Your task to perform on an android device: toggle show notifications on the lock screen Image 0: 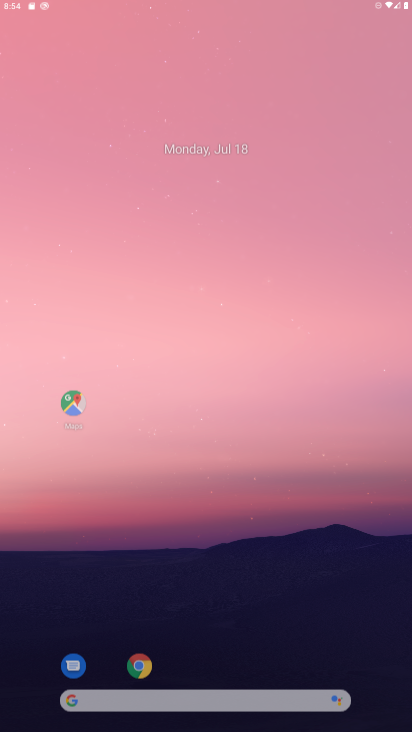
Step 0: press home button
Your task to perform on an android device: toggle show notifications on the lock screen Image 1: 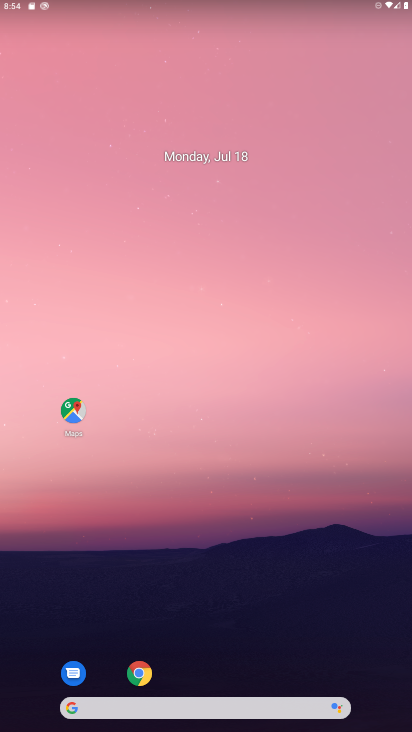
Step 1: drag from (225, 668) to (175, 3)
Your task to perform on an android device: toggle show notifications on the lock screen Image 2: 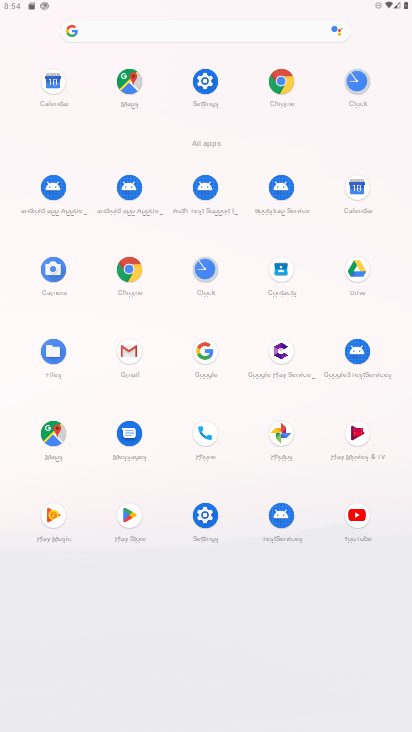
Step 2: click (195, 79)
Your task to perform on an android device: toggle show notifications on the lock screen Image 3: 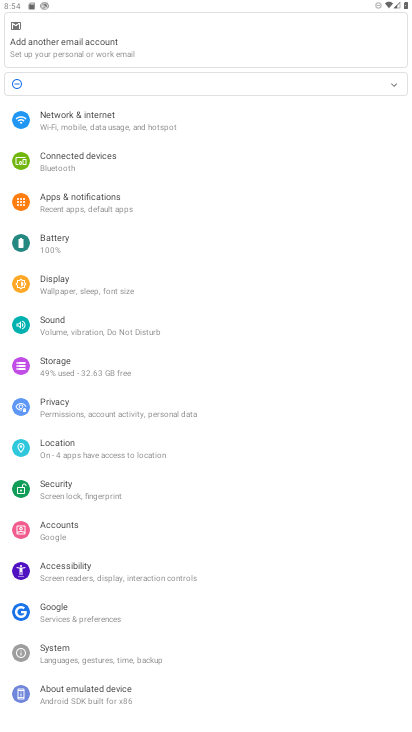
Step 3: click (76, 199)
Your task to perform on an android device: toggle show notifications on the lock screen Image 4: 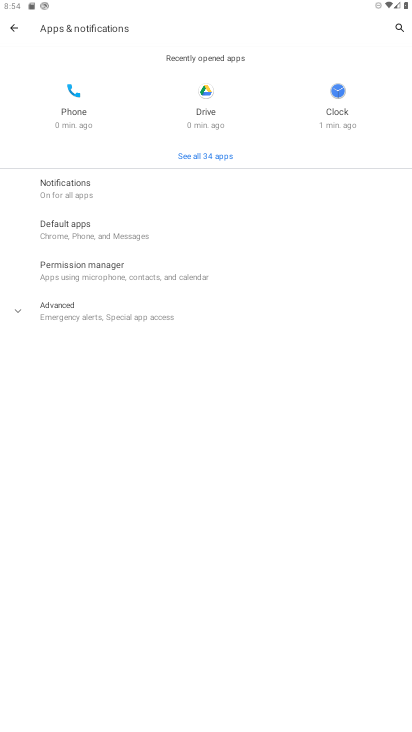
Step 4: click (62, 187)
Your task to perform on an android device: toggle show notifications on the lock screen Image 5: 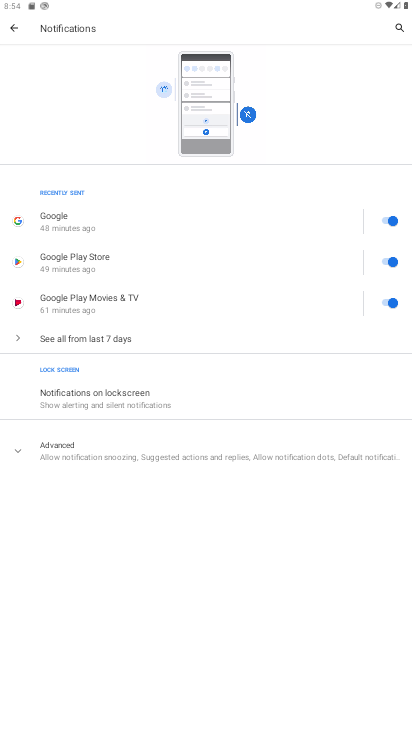
Step 5: click (103, 401)
Your task to perform on an android device: toggle show notifications on the lock screen Image 6: 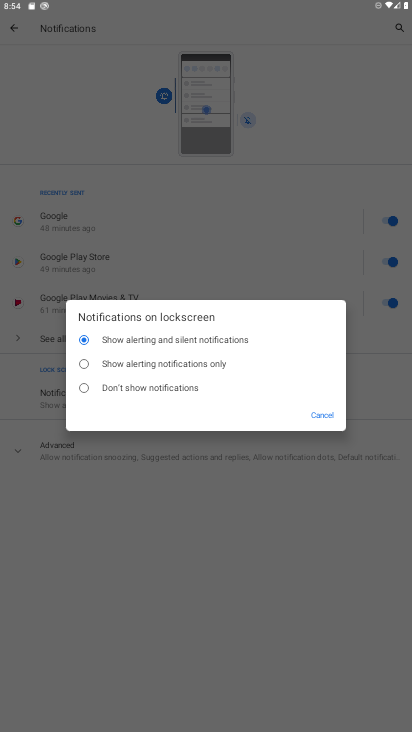
Step 6: click (87, 390)
Your task to perform on an android device: toggle show notifications on the lock screen Image 7: 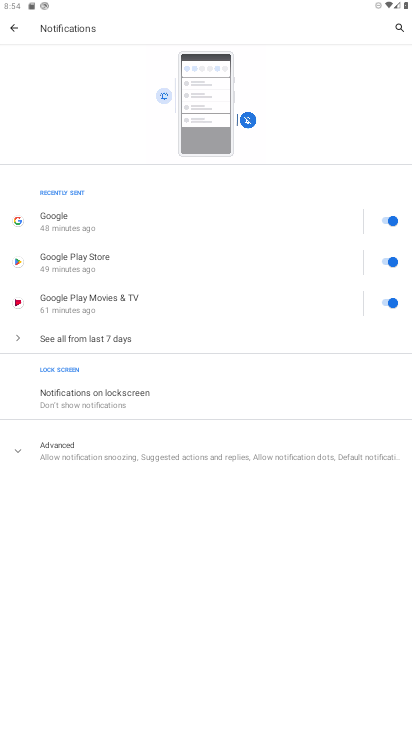
Step 7: task complete